Your task to perform on an android device: turn on data saver in the chrome app Image 0: 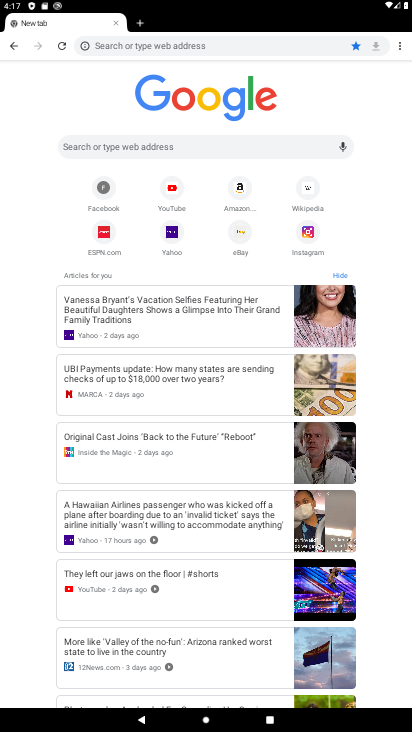
Step 0: click (402, 49)
Your task to perform on an android device: turn on data saver in the chrome app Image 1: 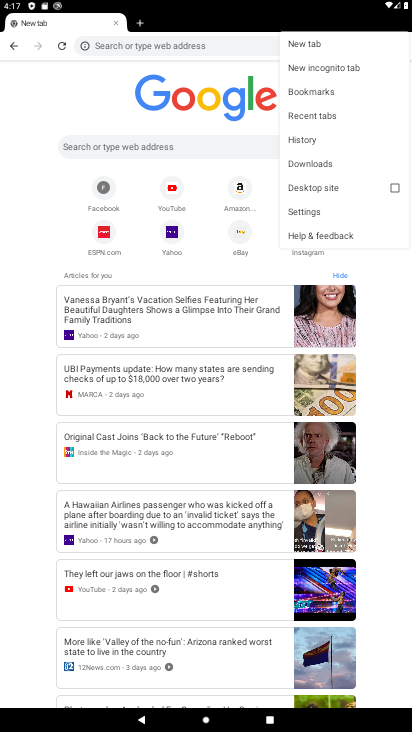
Step 1: click (296, 213)
Your task to perform on an android device: turn on data saver in the chrome app Image 2: 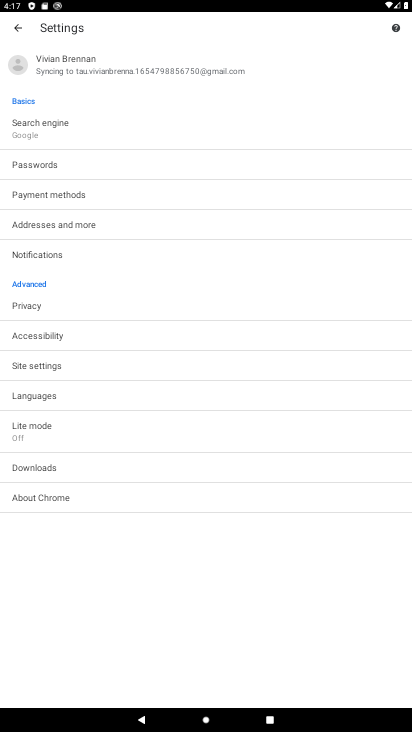
Step 2: click (41, 427)
Your task to perform on an android device: turn on data saver in the chrome app Image 3: 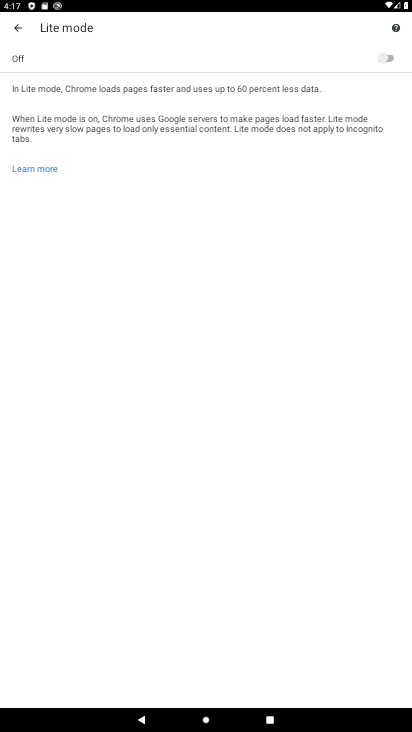
Step 3: click (402, 57)
Your task to perform on an android device: turn on data saver in the chrome app Image 4: 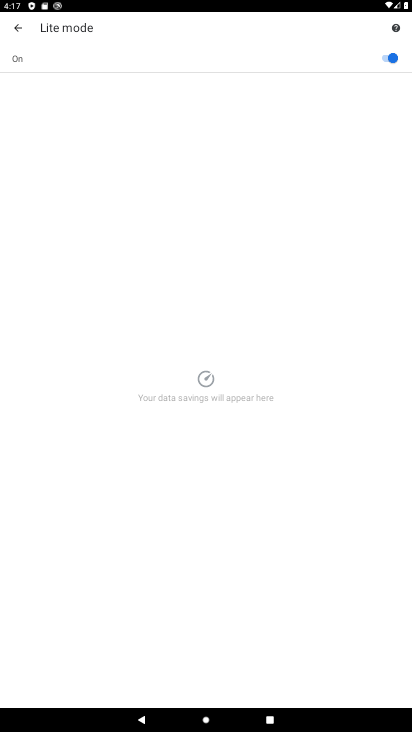
Step 4: task complete